Your task to perform on an android device: change keyboard looks Image 0: 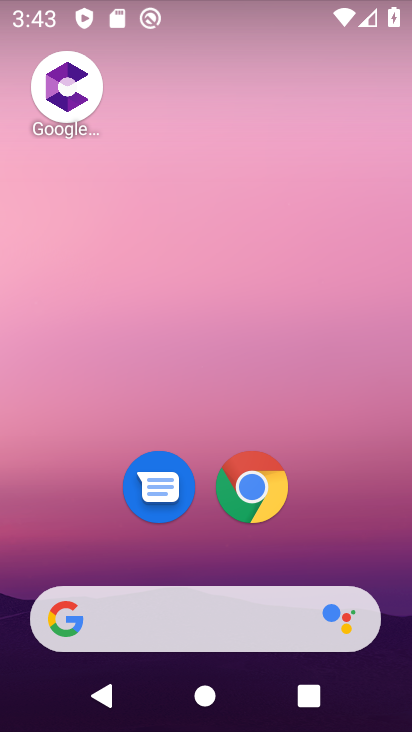
Step 0: drag from (291, 544) to (265, 25)
Your task to perform on an android device: change keyboard looks Image 1: 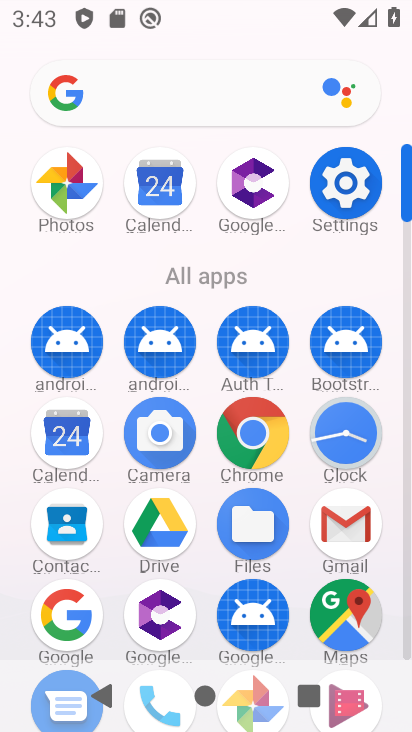
Step 1: click (317, 202)
Your task to perform on an android device: change keyboard looks Image 2: 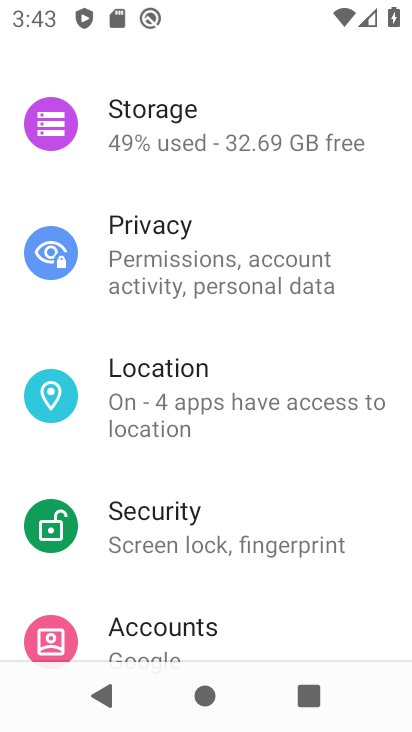
Step 2: drag from (187, 491) to (137, 51)
Your task to perform on an android device: change keyboard looks Image 3: 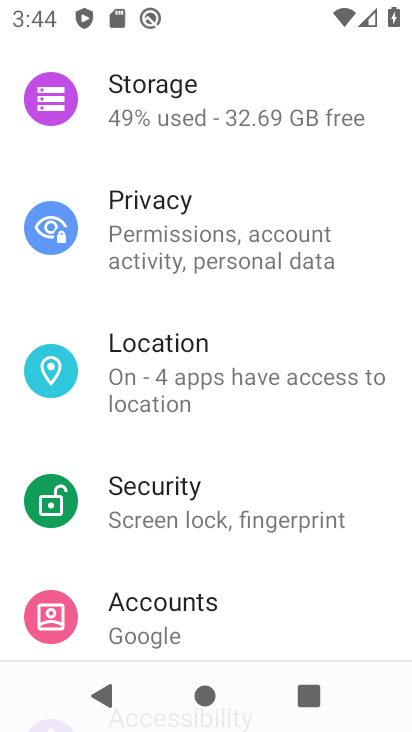
Step 3: drag from (254, 548) to (276, 136)
Your task to perform on an android device: change keyboard looks Image 4: 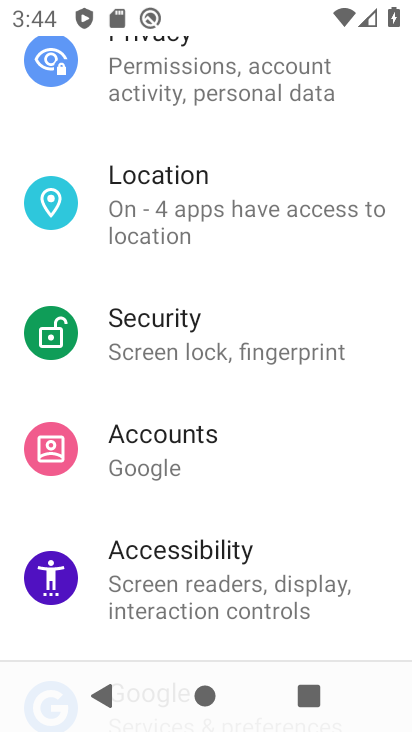
Step 4: drag from (203, 578) to (207, 159)
Your task to perform on an android device: change keyboard looks Image 5: 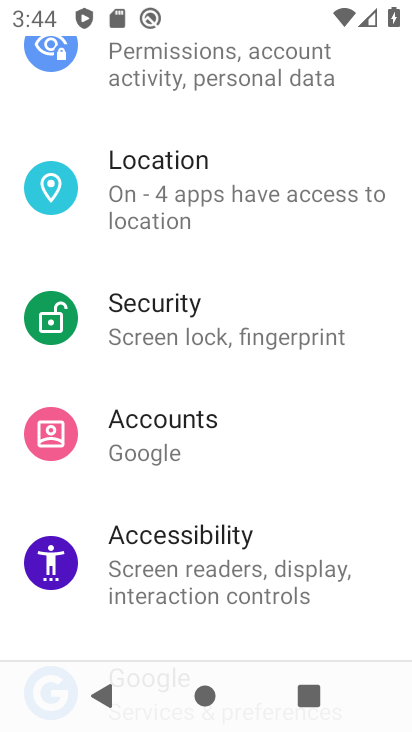
Step 5: drag from (243, 334) to (234, 225)
Your task to perform on an android device: change keyboard looks Image 6: 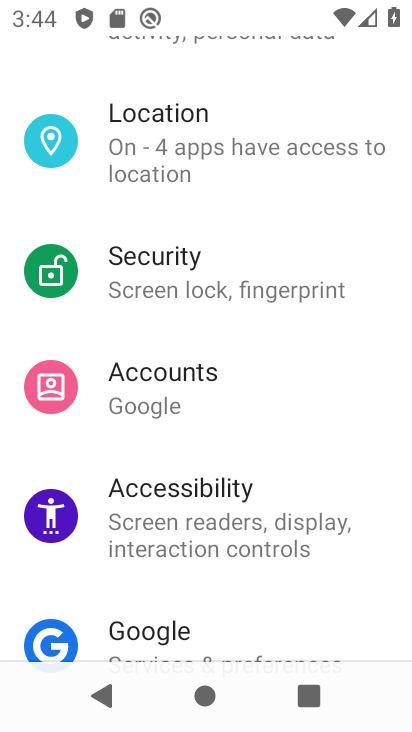
Step 6: drag from (185, 587) to (295, 112)
Your task to perform on an android device: change keyboard looks Image 7: 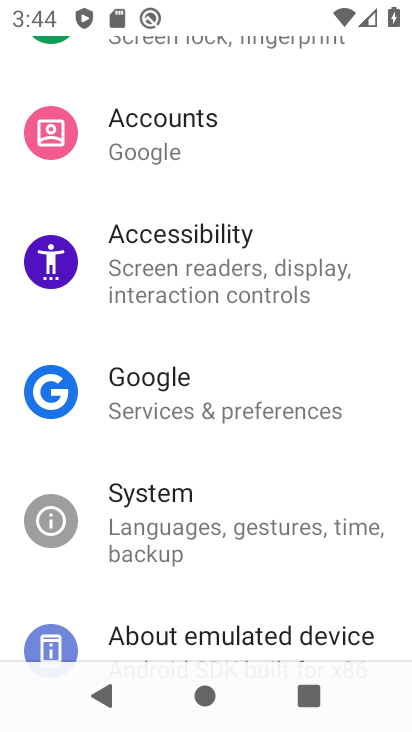
Step 7: click (169, 533)
Your task to perform on an android device: change keyboard looks Image 8: 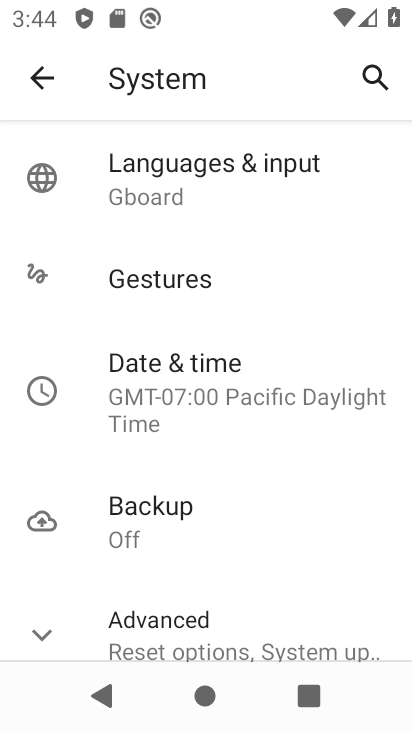
Step 8: click (126, 195)
Your task to perform on an android device: change keyboard looks Image 9: 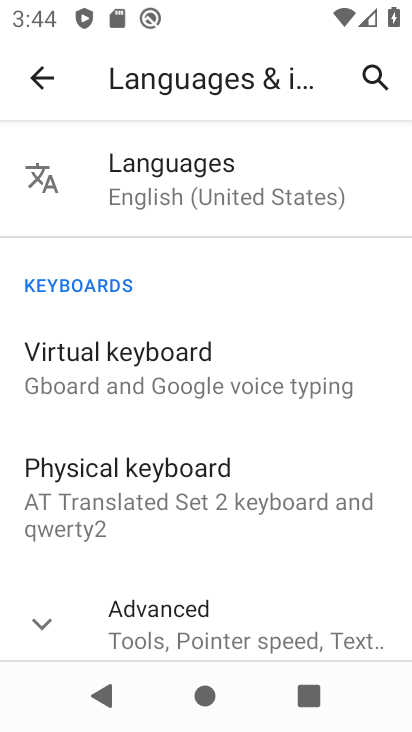
Step 9: click (131, 362)
Your task to perform on an android device: change keyboard looks Image 10: 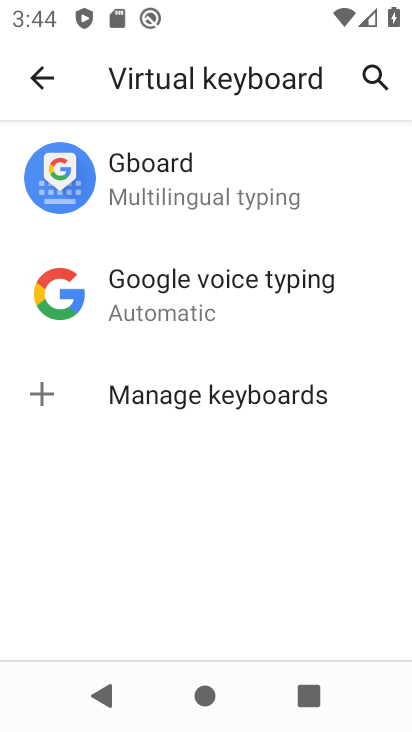
Step 10: click (106, 181)
Your task to perform on an android device: change keyboard looks Image 11: 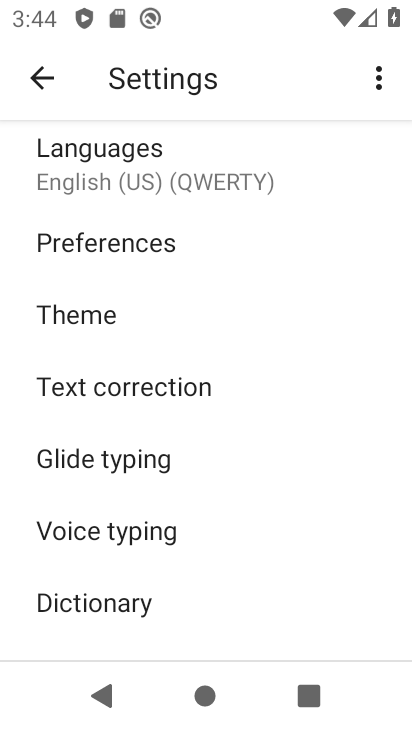
Step 11: click (55, 312)
Your task to perform on an android device: change keyboard looks Image 12: 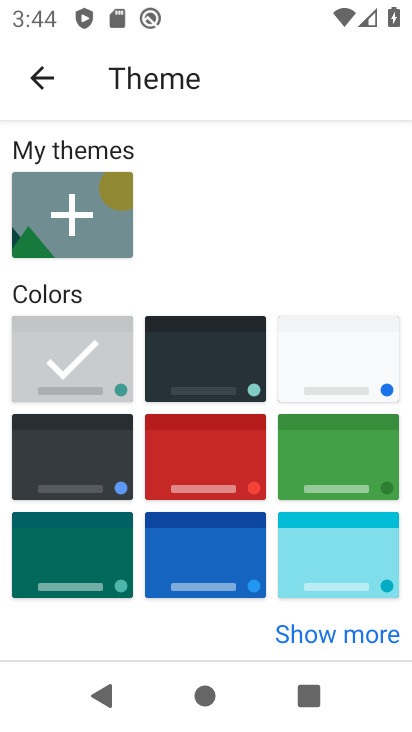
Step 12: click (168, 350)
Your task to perform on an android device: change keyboard looks Image 13: 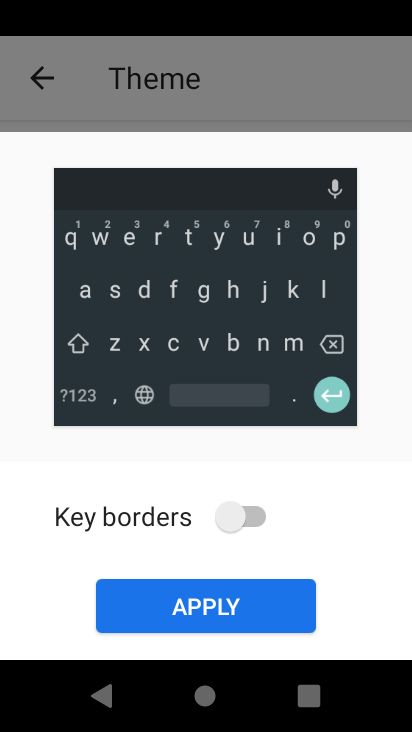
Step 13: click (242, 586)
Your task to perform on an android device: change keyboard looks Image 14: 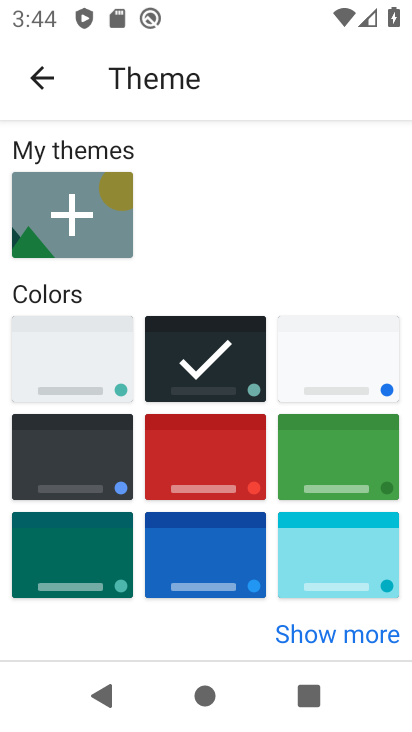
Step 14: task complete